Your task to perform on an android device: toggle notification dots Image 0: 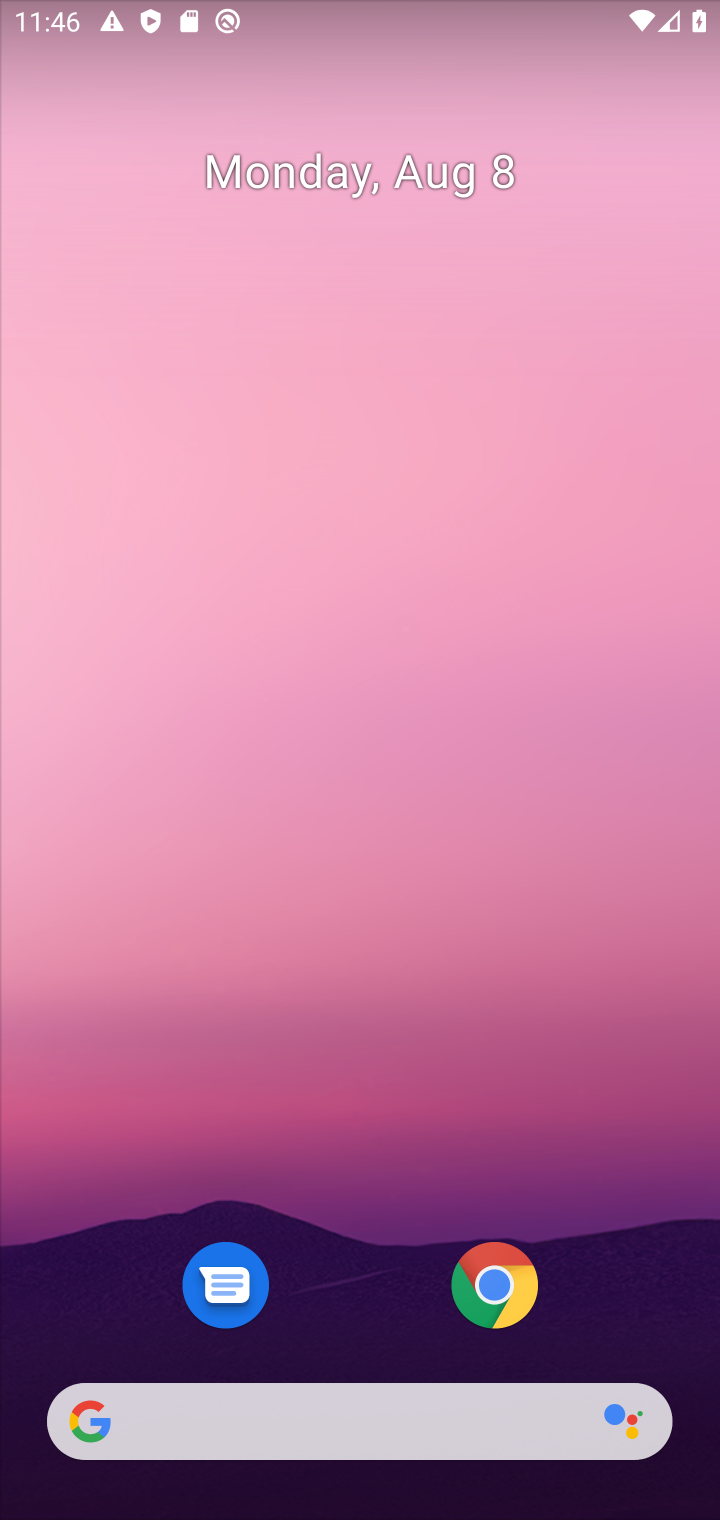
Step 0: drag from (354, 1341) to (371, 940)
Your task to perform on an android device: toggle notification dots Image 1: 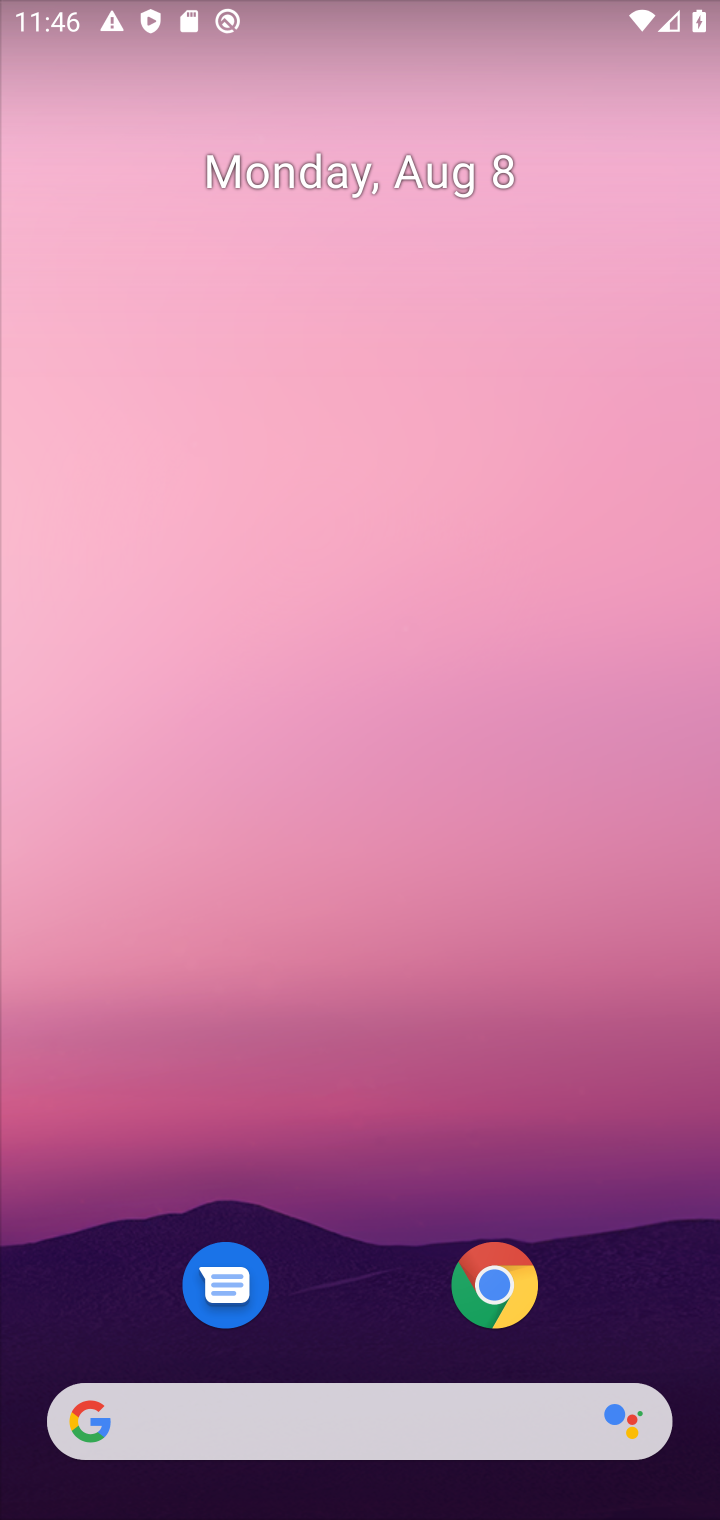
Step 1: click (373, 921)
Your task to perform on an android device: toggle notification dots Image 2: 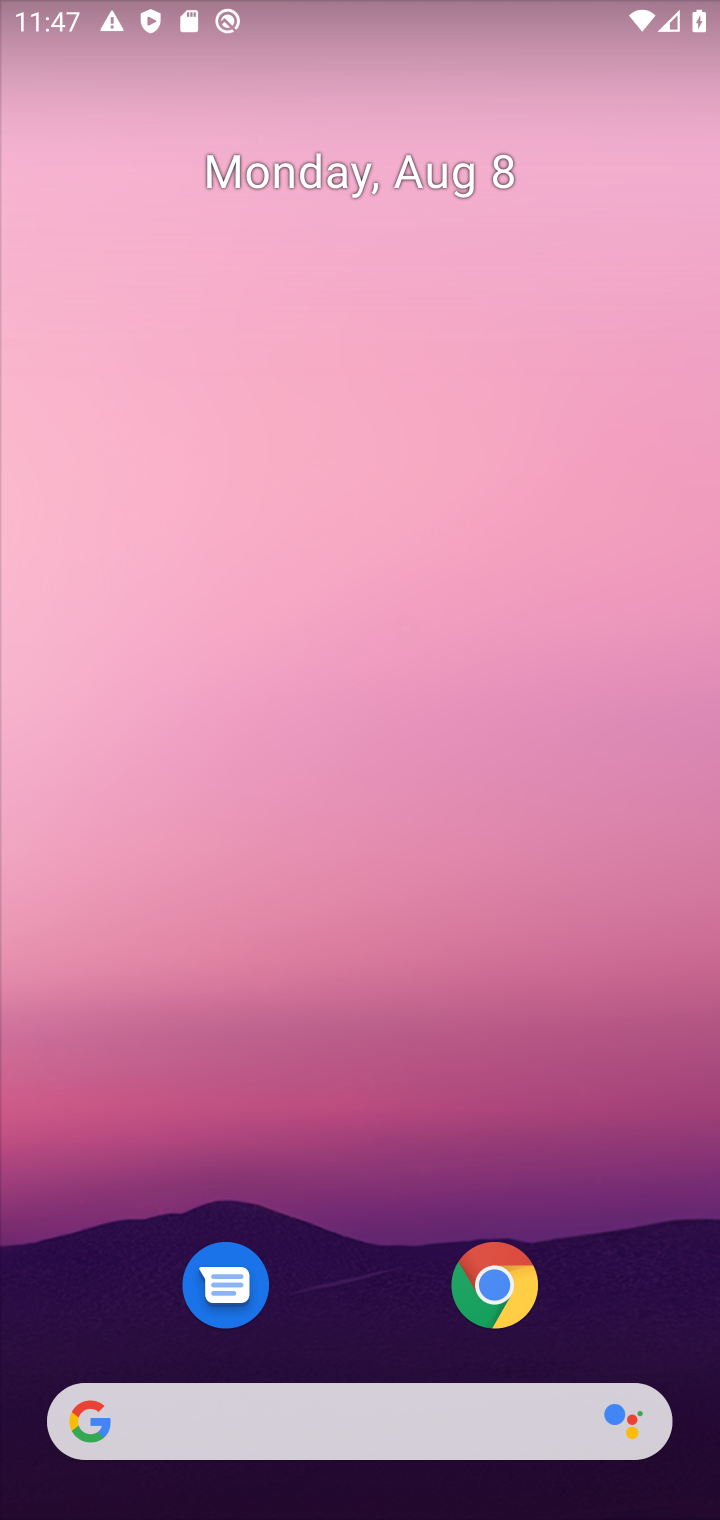
Step 2: drag from (414, 1005) to (478, 398)
Your task to perform on an android device: toggle notification dots Image 3: 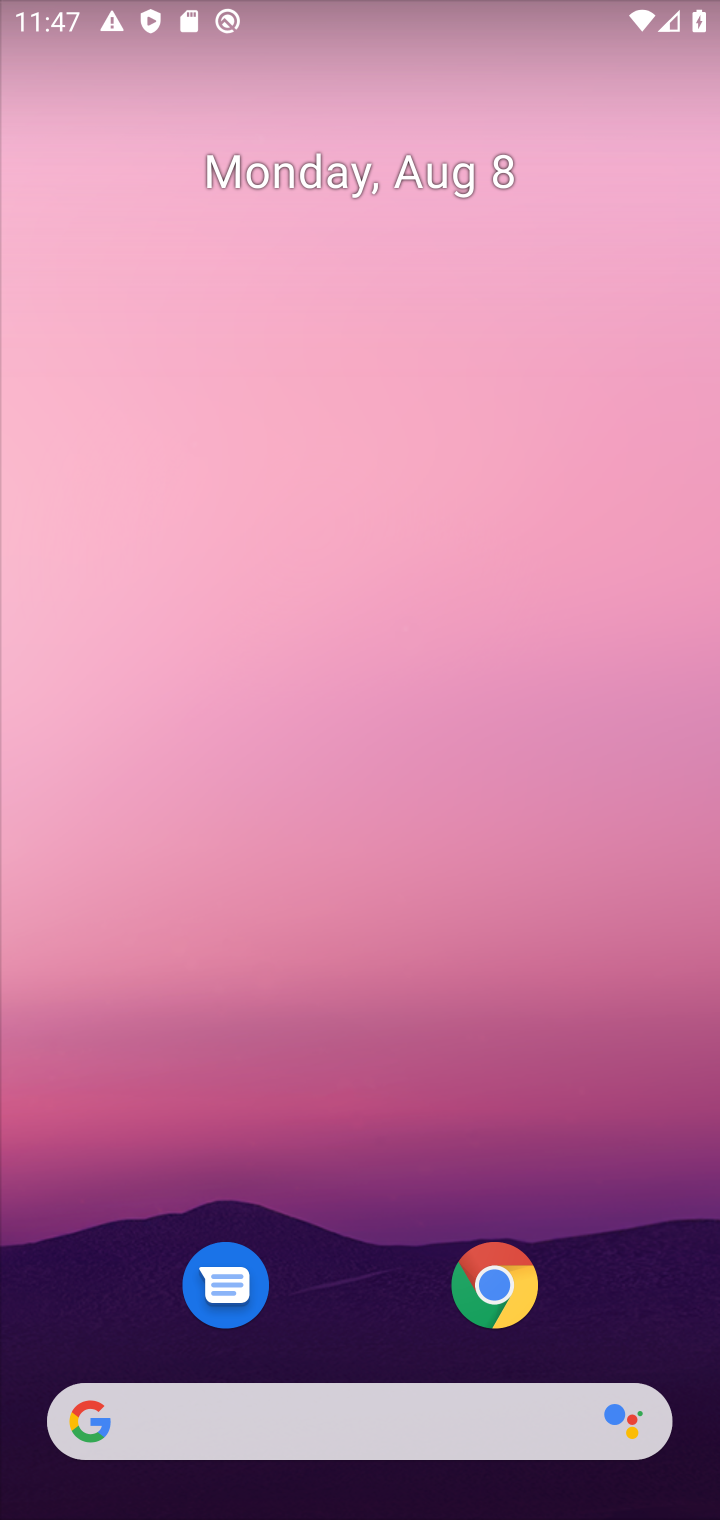
Step 3: drag from (369, 1299) to (558, 159)
Your task to perform on an android device: toggle notification dots Image 4: 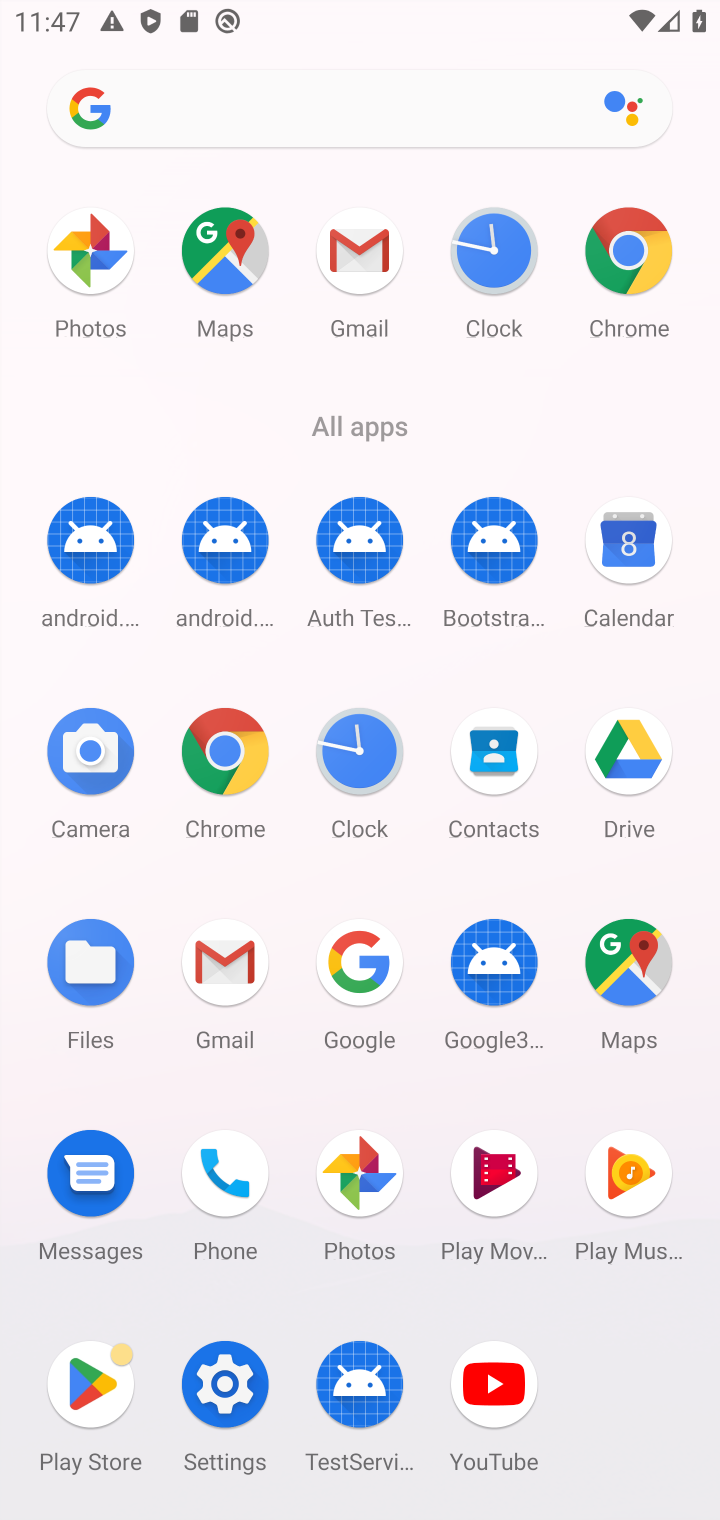
Step 4: click (238, 1384)
Your task to perform on an android device: toggle notification dots Image 5: 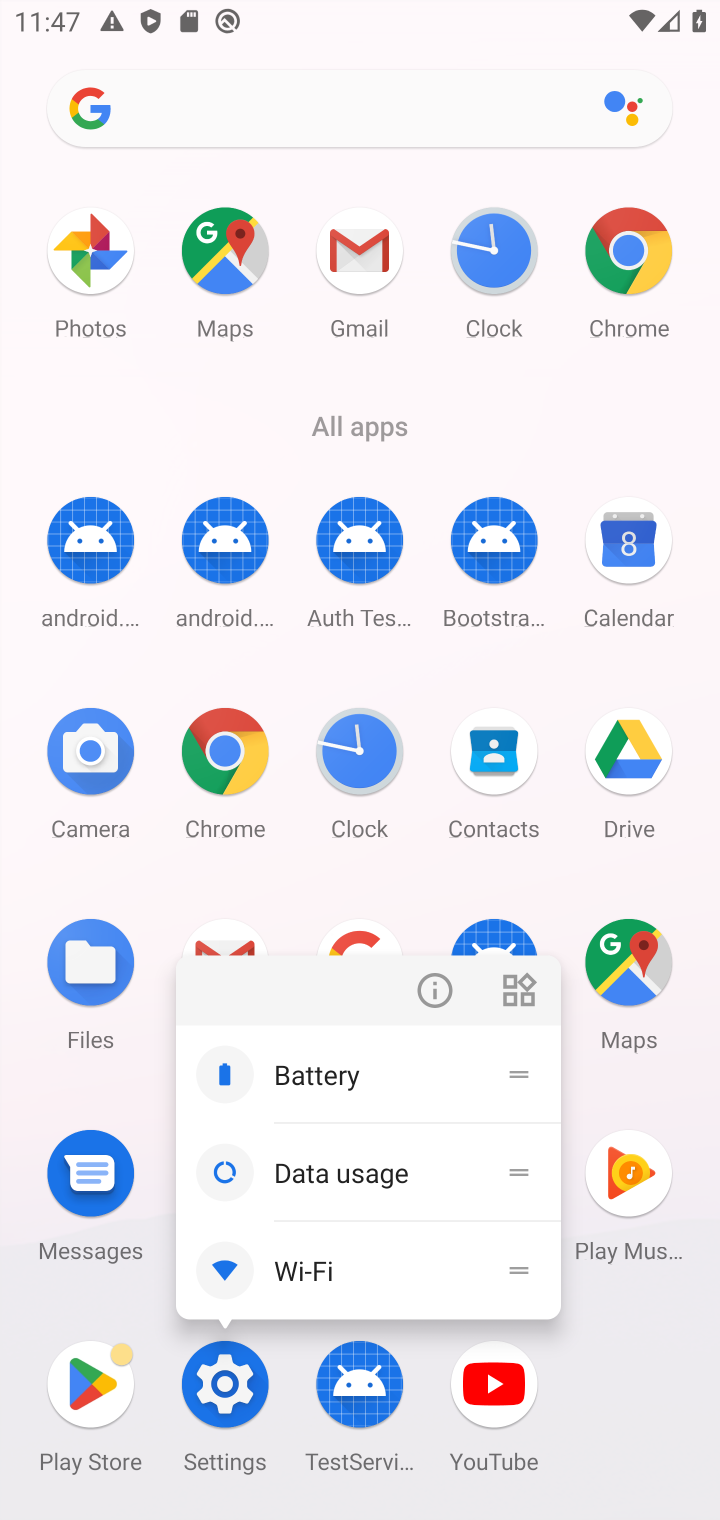
Step 5: click (436, 989)
Your task to perform on an android device: toggle notification dots Image 6: 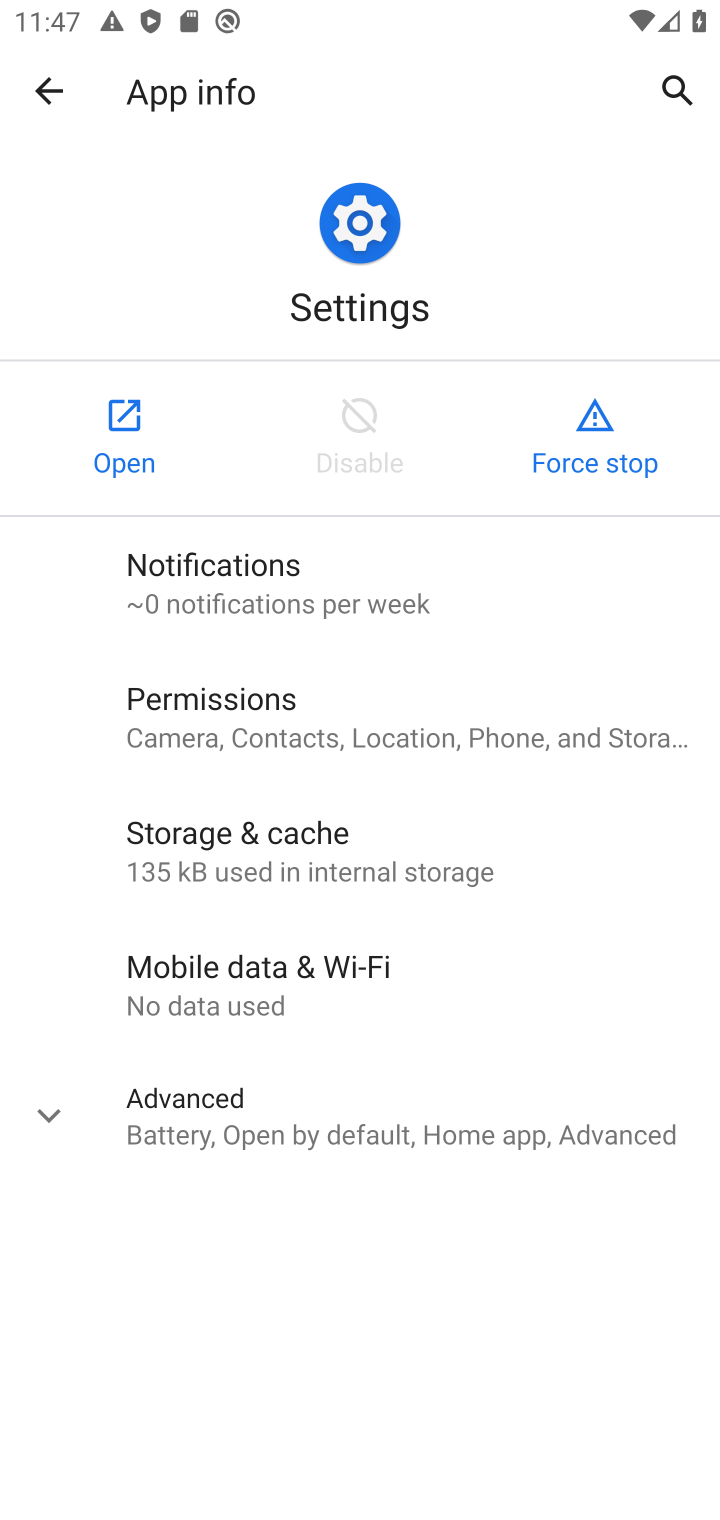
Step 6: click (130, 397)
Your task to perform on an android device: toggle notification dots Image 7: 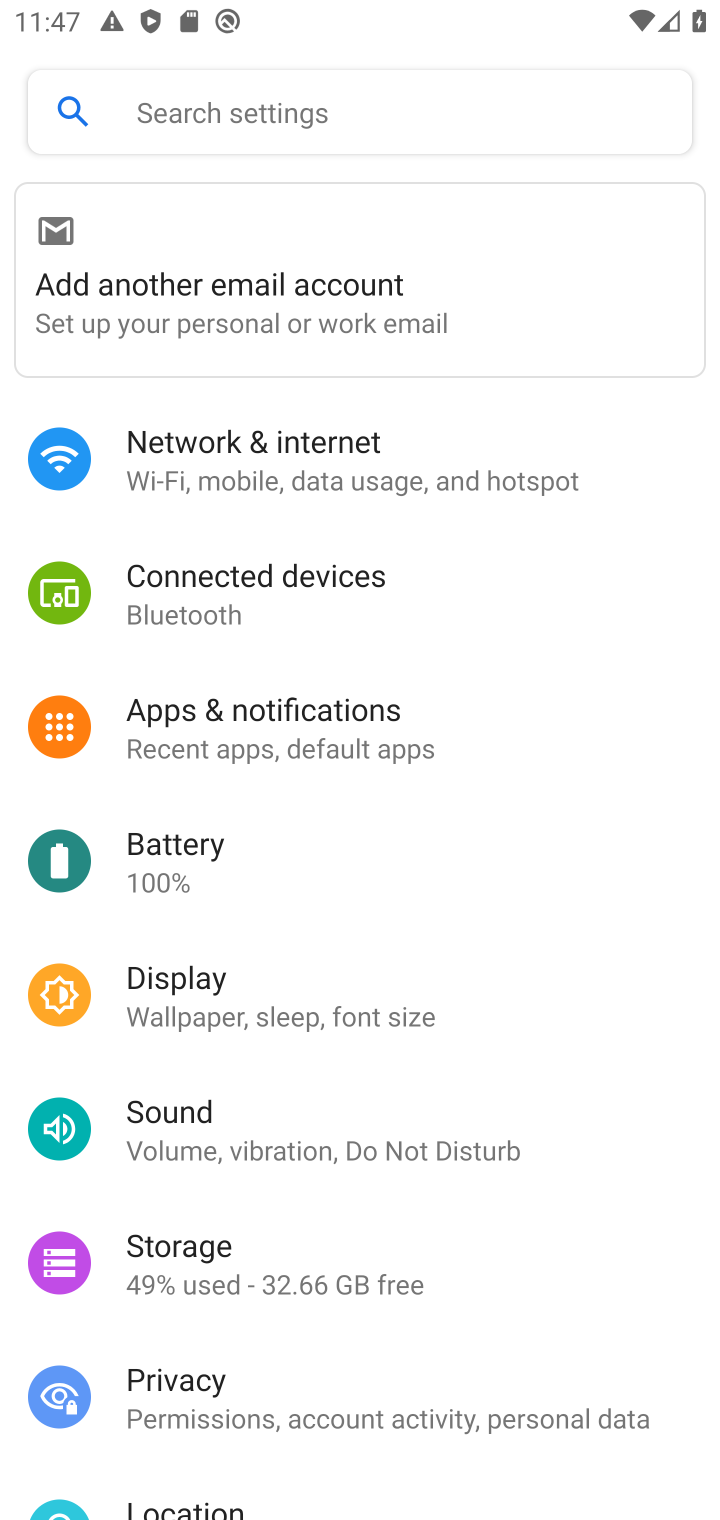
Step 7: click (280, 751)
Your task to perform on an android device: toggle notification dots Image 8: 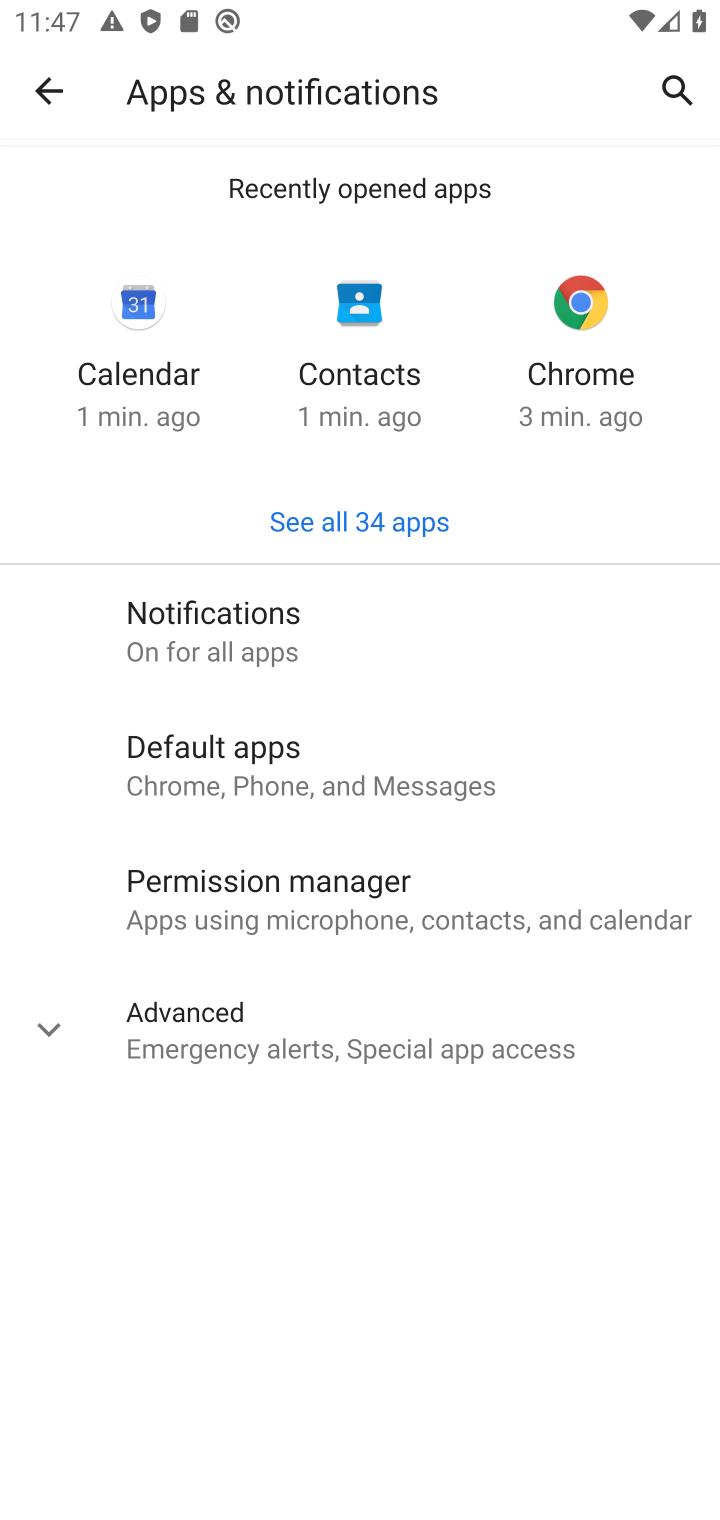
Step 8: click (277, 648)
Your task to perform on an android device: toggle notification dots Image 9: 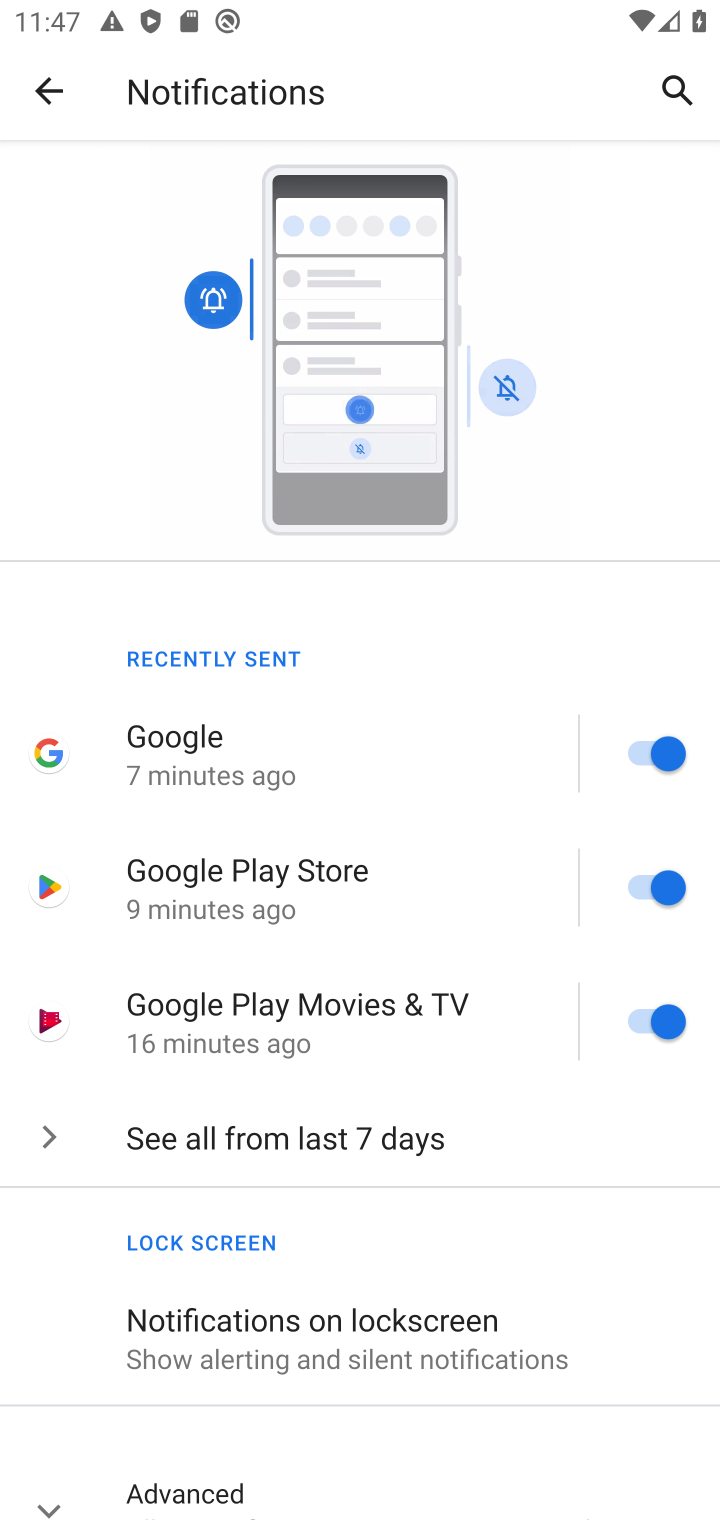
Step 9: drag from (248, 1465) to (326, 541)
Your task to perform on an android device: toggle notification dots Image 10: 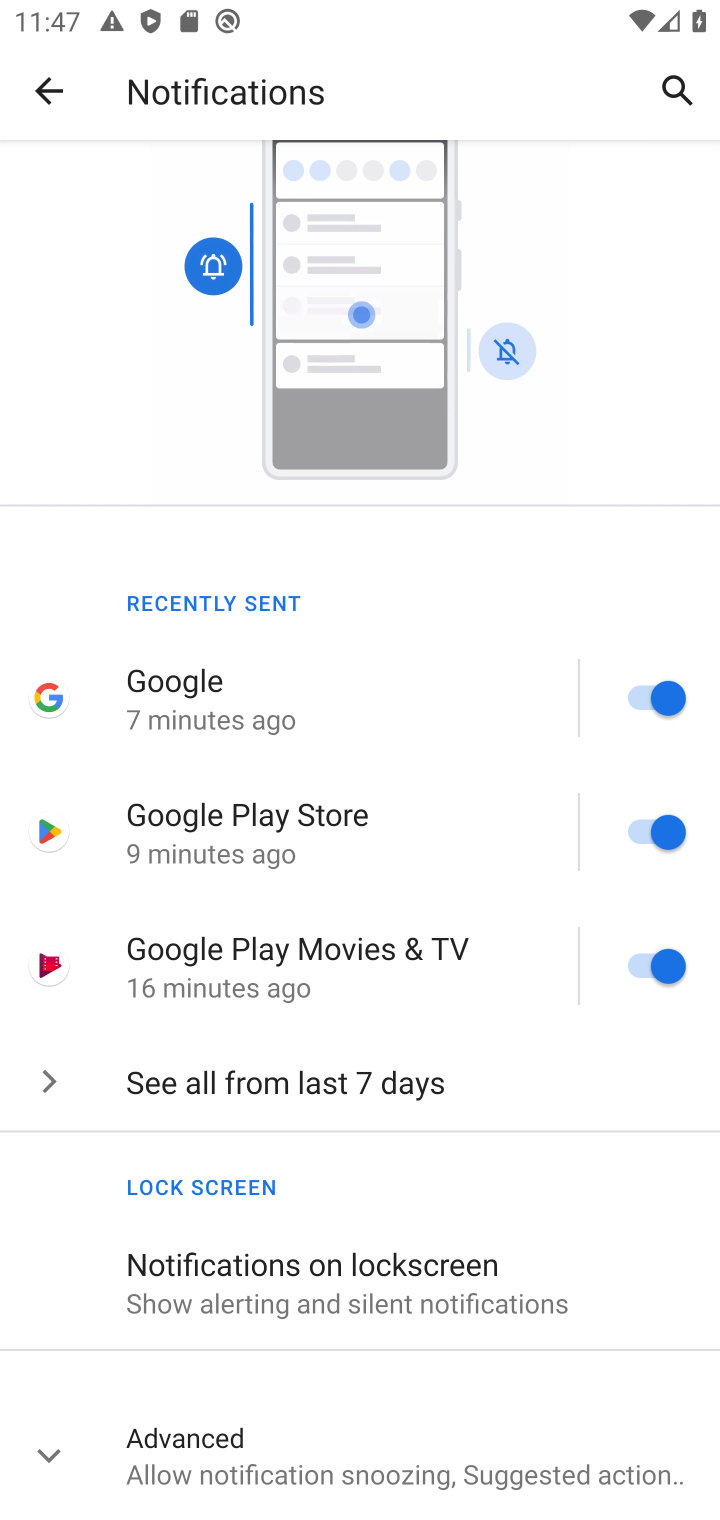
Step 10: click (224, 1453)
Your task to perform on an android device: toggle notification dots Image 11: 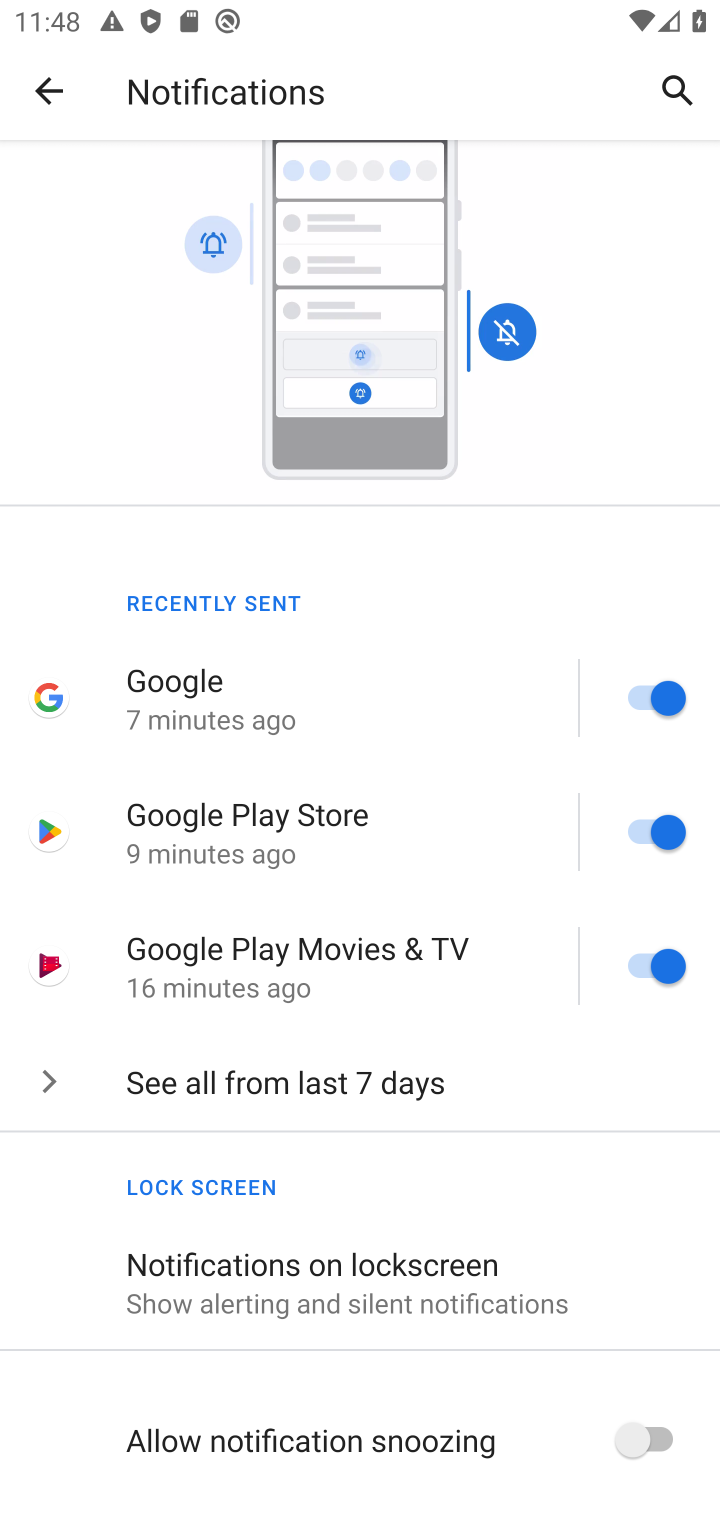
Step 11: drag from (352, 1343) to (528, 425)
Your task to perform on an android device: toggle notification dots Image 12: 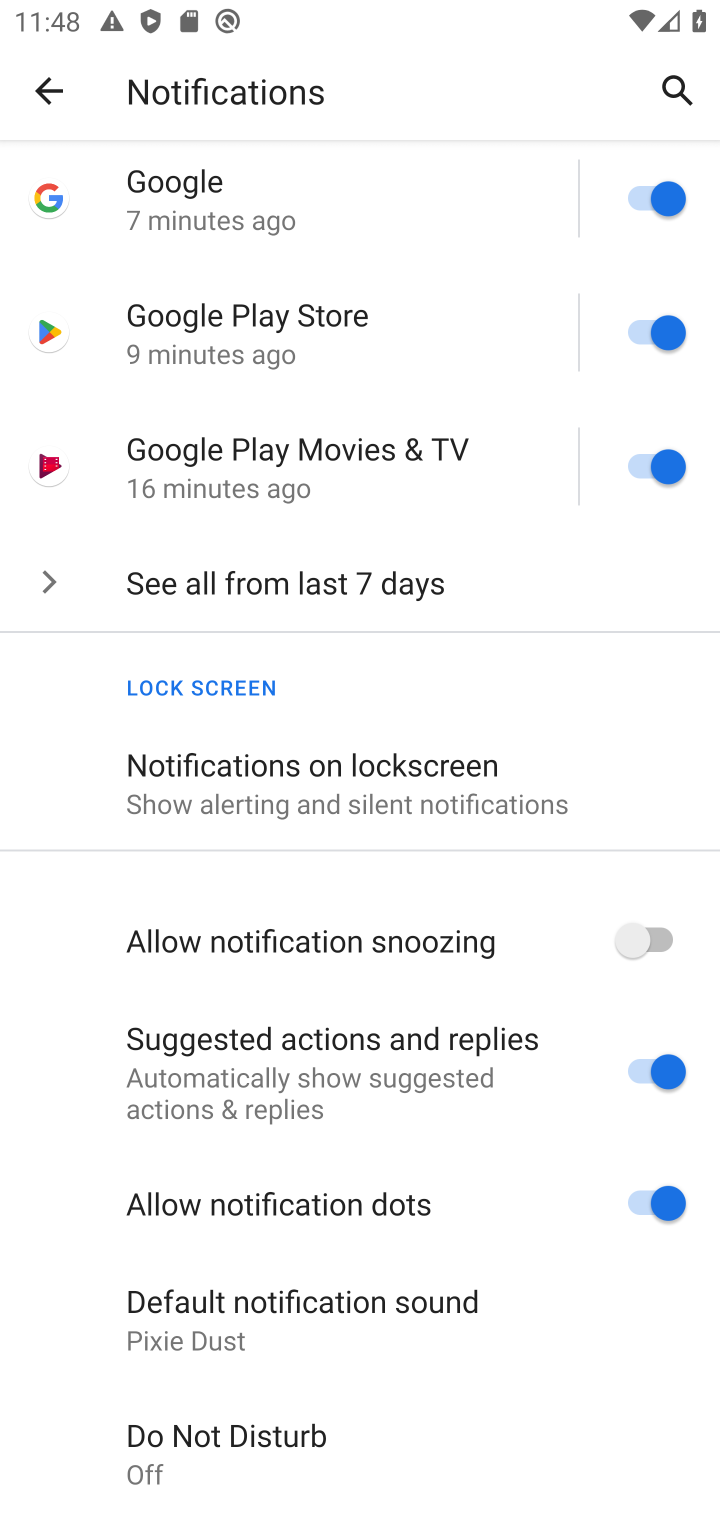
Step 12: click (650, 1188)
Your task to perform on an android device: toggle notification dots Image 13: 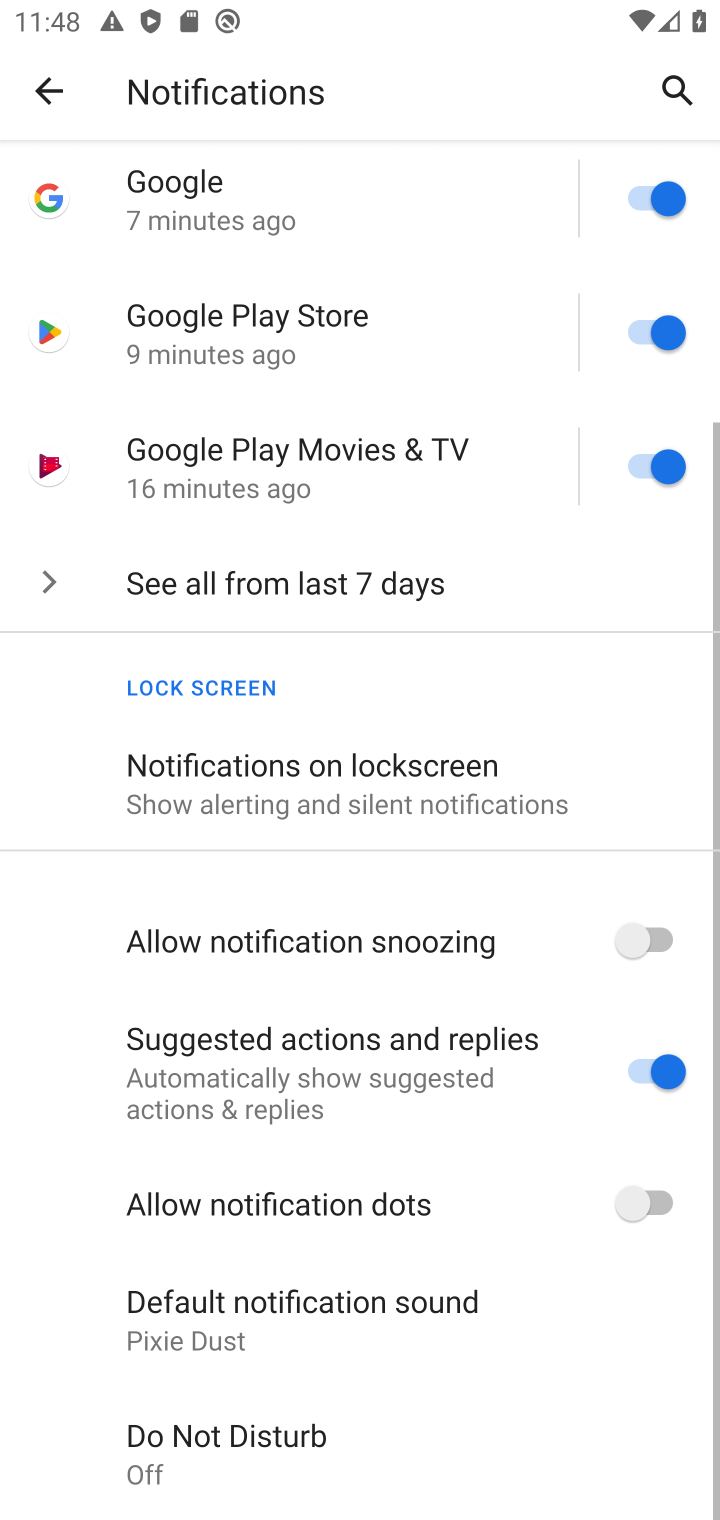
Step 13: task complete